Your task to perform on an android device: find photos in the google photos app Image 0: 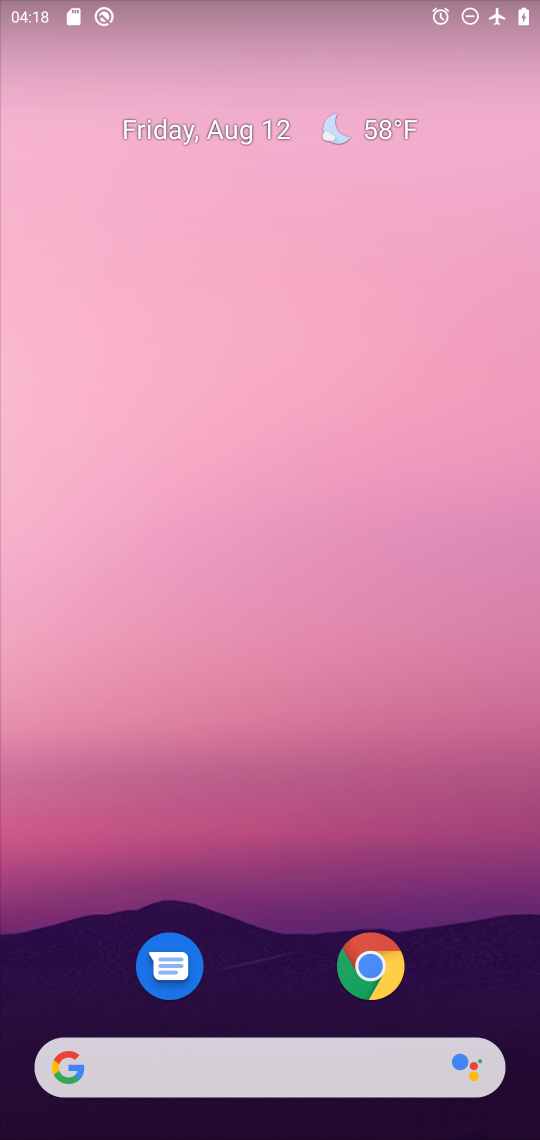
Step 0: drag from (247, 903) to (350, 84)
Your task to perform on an android device: find photos in the google photos app Image 1: 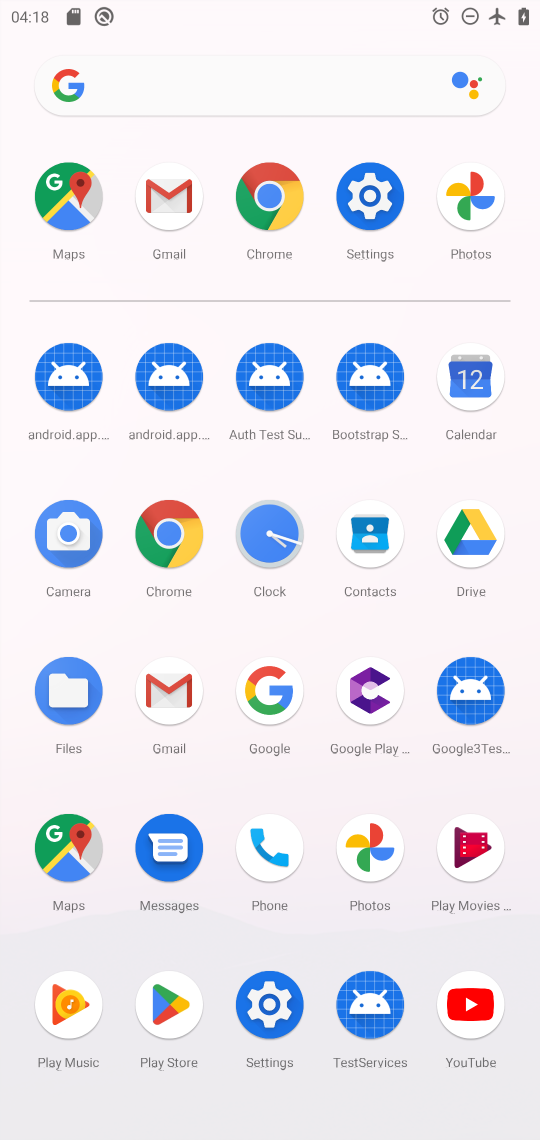
Step 1: click (361, 852)
Your task to perform on an android device: find photos in the google photos app Image 2: 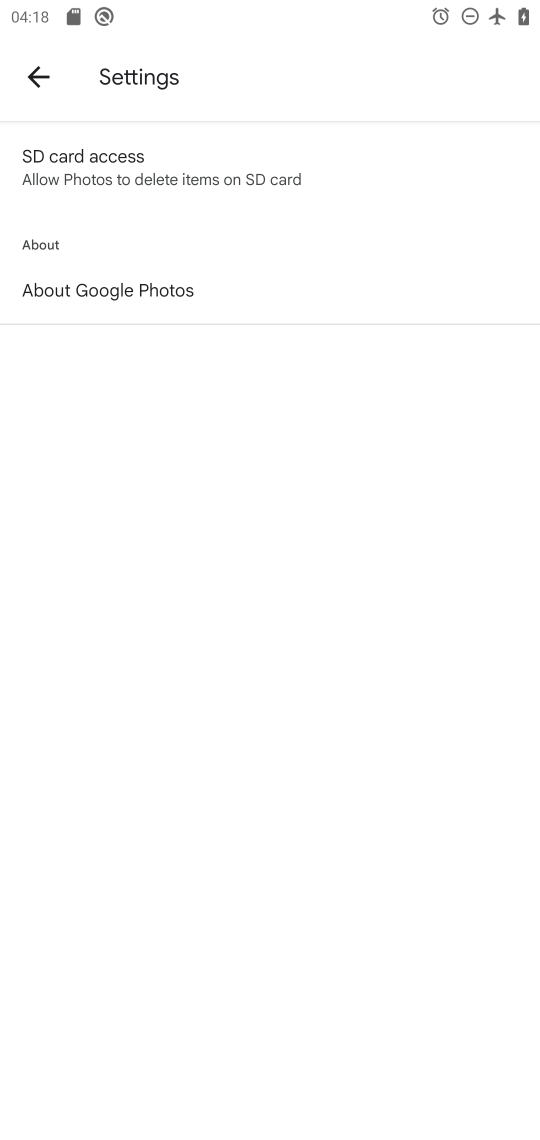
Step 2: click (42, 83)
Your task to perform on an android device: find photos in the google photos app Image 3: 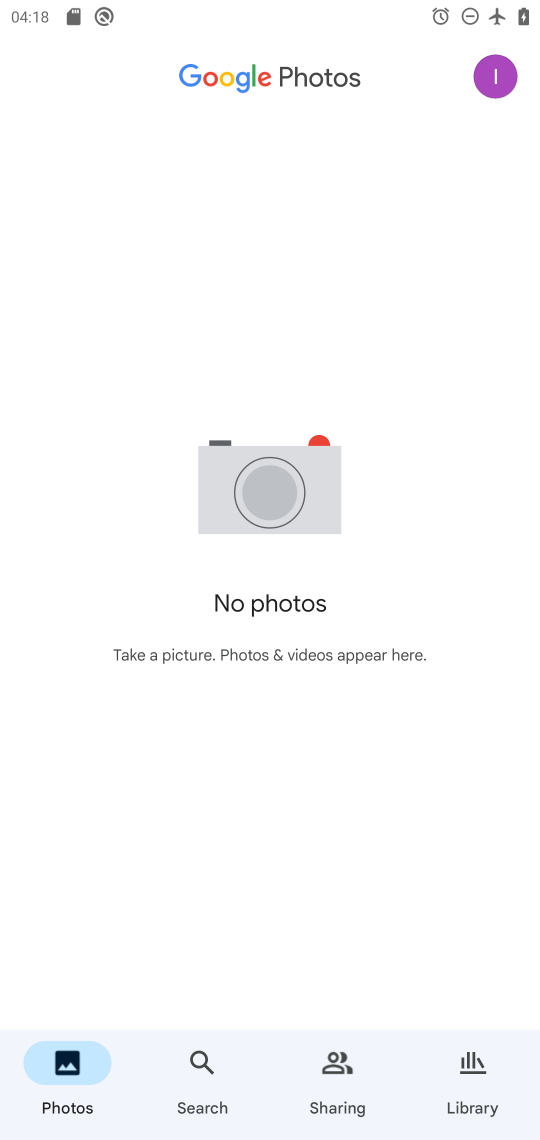
Step 3: task complete